Your task to perform on an android device: Set an alarm for 2pm Image 0: 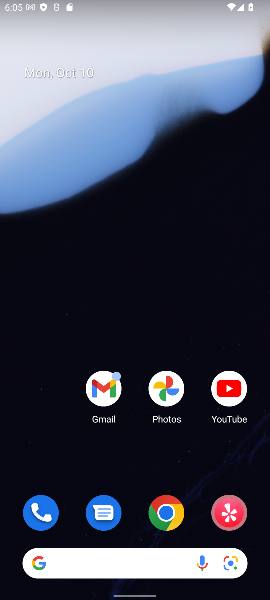
Step 0: drag from (144, 461) to (169, 1)
Your task to perform on an android device: Set an alarm for 2pm Image 1: 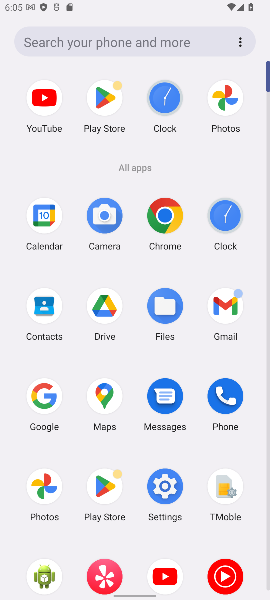
Step 1: click (166, 132)
Your task to perform on an android device: Set an alarm for 2pm Image 2: 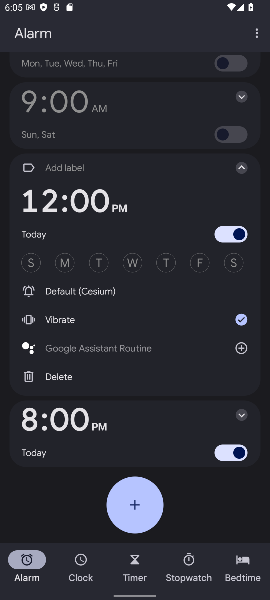
Step 2: click (133, 497)
Your task to perform on an android device: Set an alarm for 2pm Image 3: 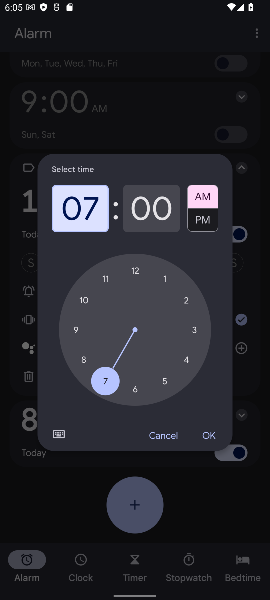
Step 3: click (192, 304)
Your task to perform on an android device: Set an alarm for 2pm Image 4: 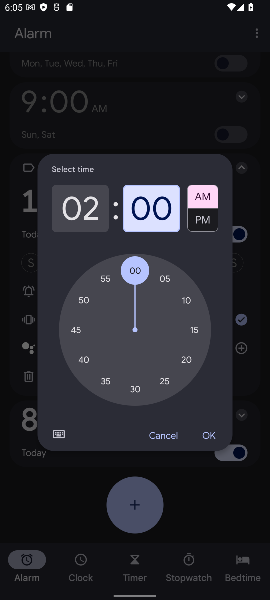
Step 4: click (205, 218)
Your task to perform on an android device: Set an alarm for 2pm Image 5: 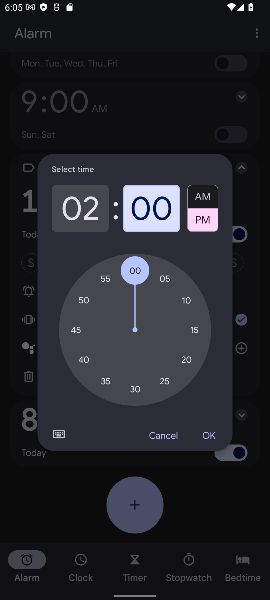
Step 5: task complete